Your task to perform on an android device: turn on priority inbox in the gmail app Image 0: 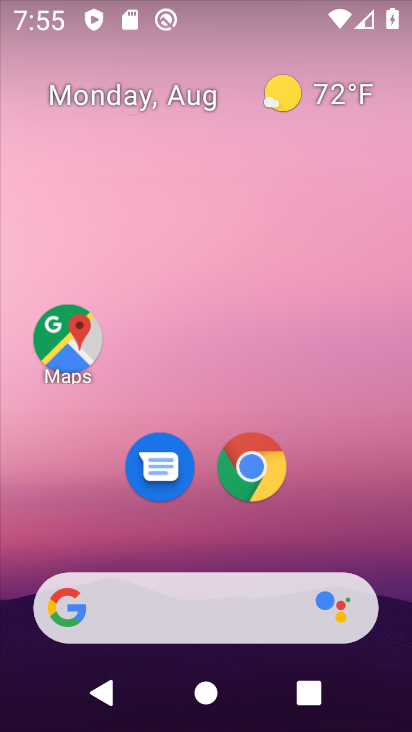
Step 0: press home button
Your task to perform on an android device: turn on priority inbox in the gmail app Image 1: 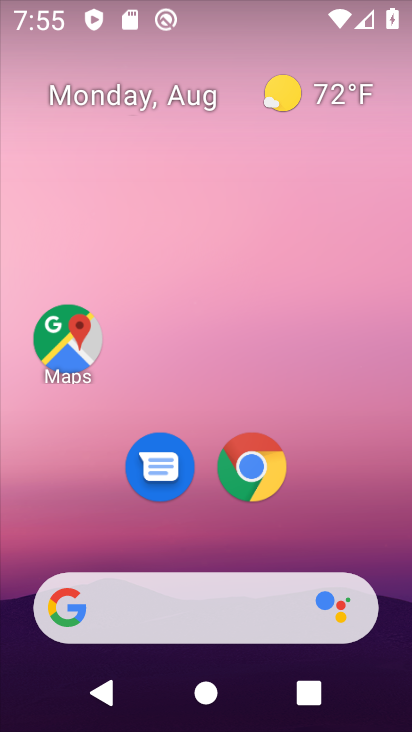
Step 1: drag from (328, 469) to (339, 139)
Your task to perform on an android device: turn on priority inbox in the gmail app Image 2: 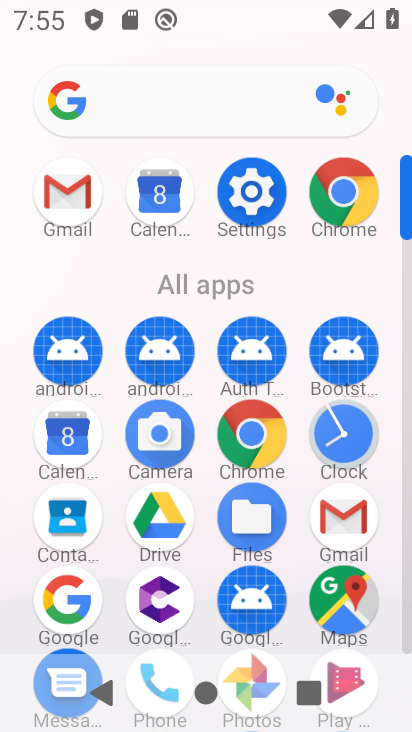
Step 2: click (345, 519)
Your task to perform on an android device: turn on priority inbox in the gmail app Image 3: 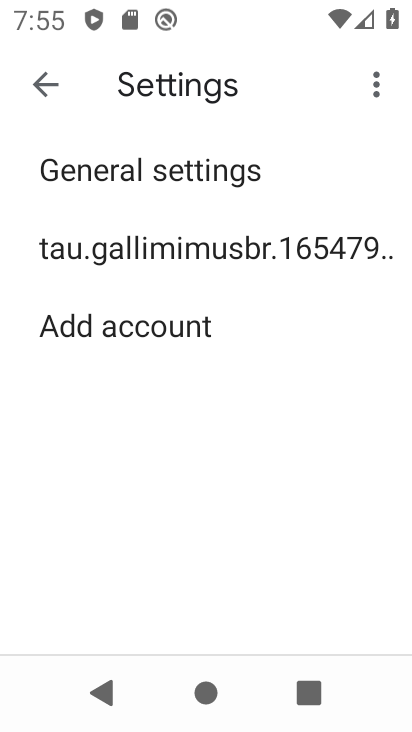
Step 3: click (260, 250)
Your task to perform on an android device: turn on priority inbox in the gmail app Image 4: 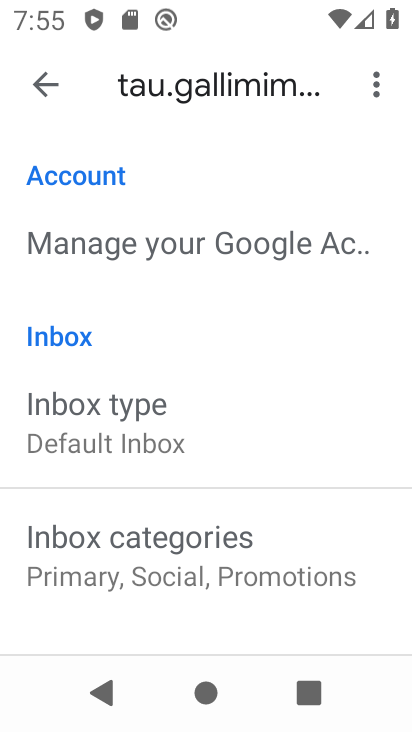
Step 4: click (211, 446)
Your task to perform on an android device: turn on priority inbox in the gmail app Image 5: 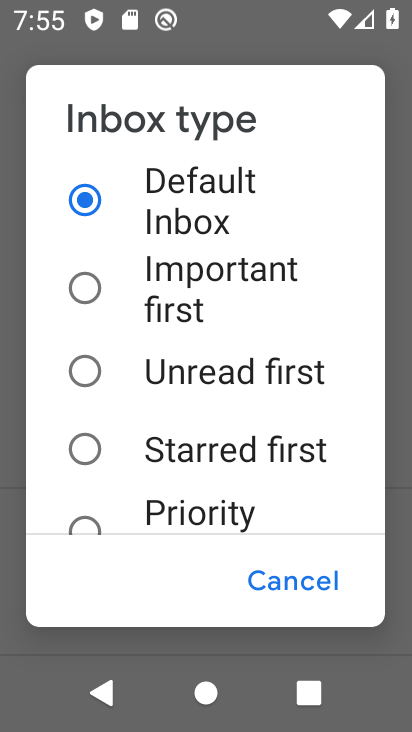
Step 5: drag from (236, 427) to (249, 270)
Your task to perform on an android device: turn on priority inbox in the gmail app Image 6: 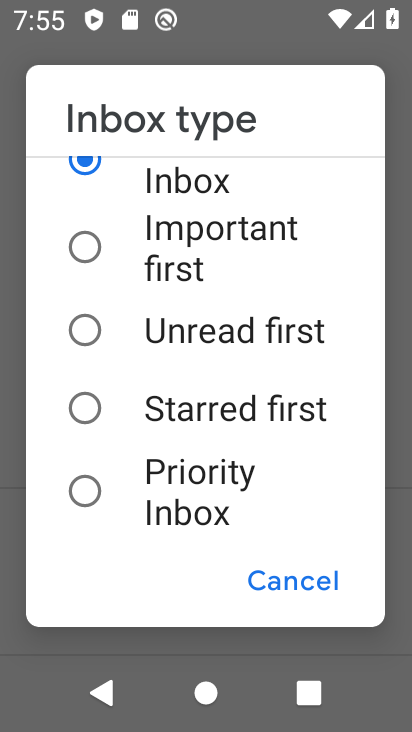
Step 6: click (215, 480)
Your task to perform on an android device: turn on priority inbox in the gmail app Image 7: 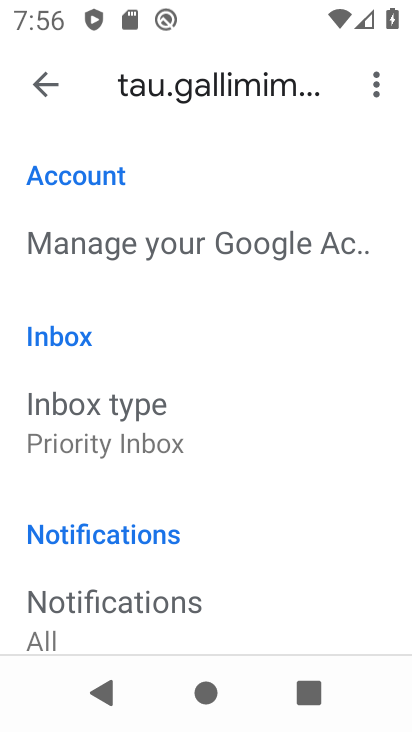
Step 7: task complete